Your task to perform on an android device: Is it going to rain tomorrow? Image 0: 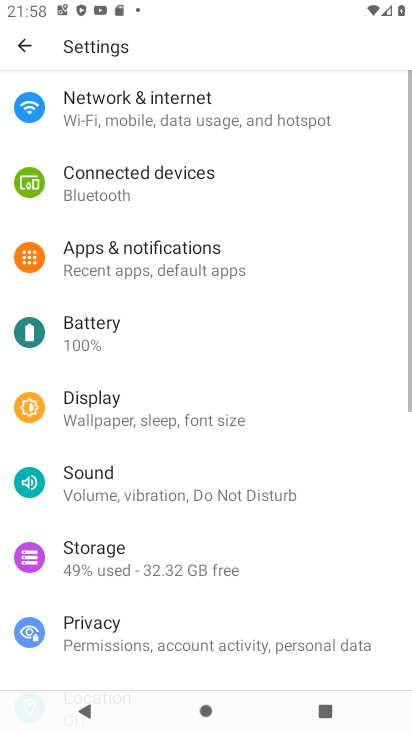
Step 0: press home button
Your task to perform on an android device: Is it going to rain tomorrow? Image 1: 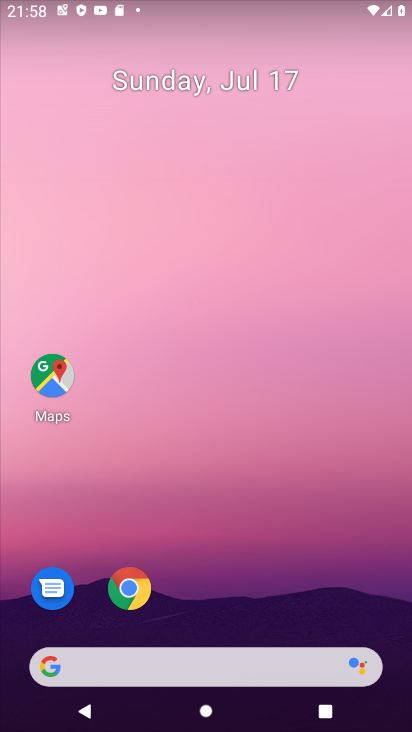
Step 1: click (130, 605)
Your task to perform on an android device: Is it going to rain tomorrow? Image 2: 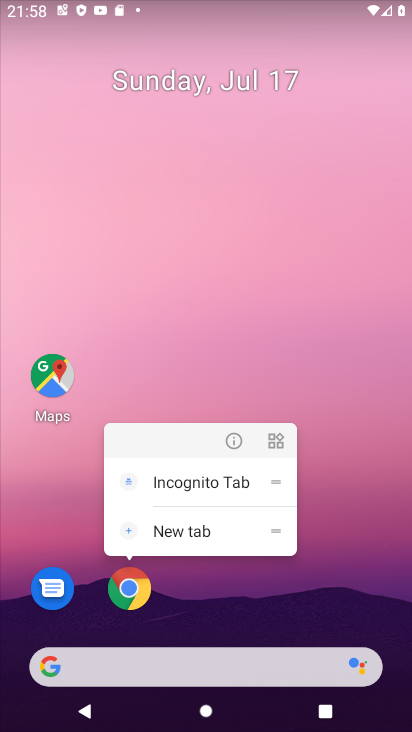
Step 2: click (139, 574)
Your task to perform on an android device: Is it going to rain tomorrow? Image 3: 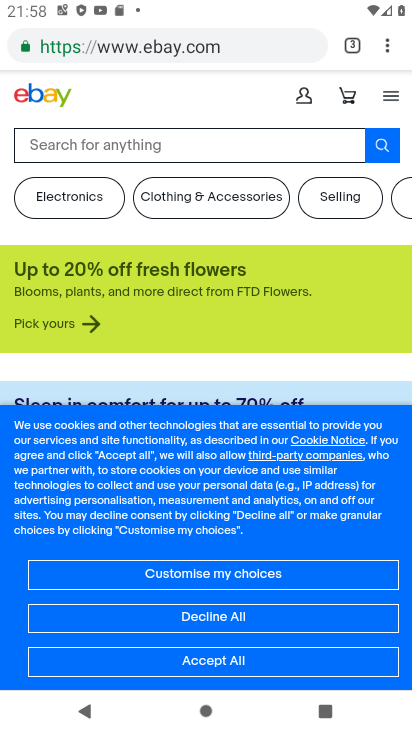
Step 3: click (220, 42)
Your task to perform on an android device: Is it going to rain tomorrow? Image 4: 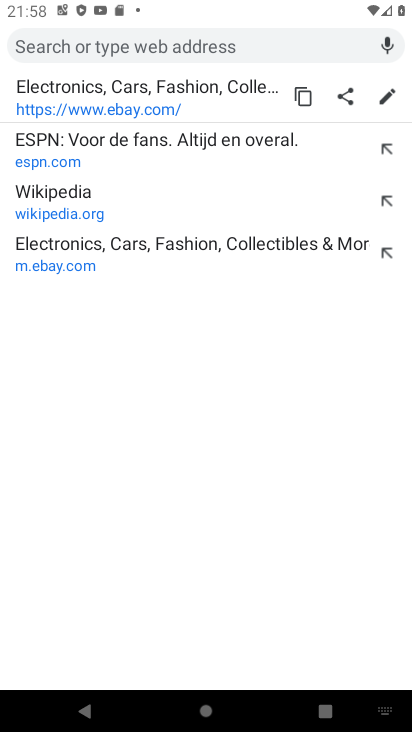
Step 4: type "Is it going to rain tomorrow?"
Your task to perform on an android device: Is it going to rain tomorrow? Image 5: 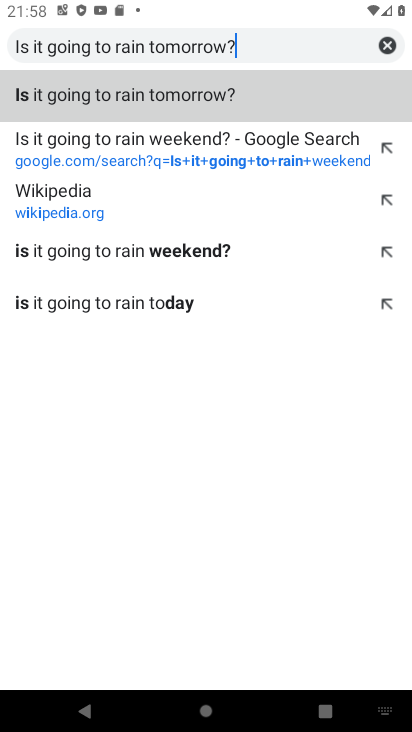
Step 5: type ""
Your task to perform on an android device: Is it going to rain tomorrow? Image 6: 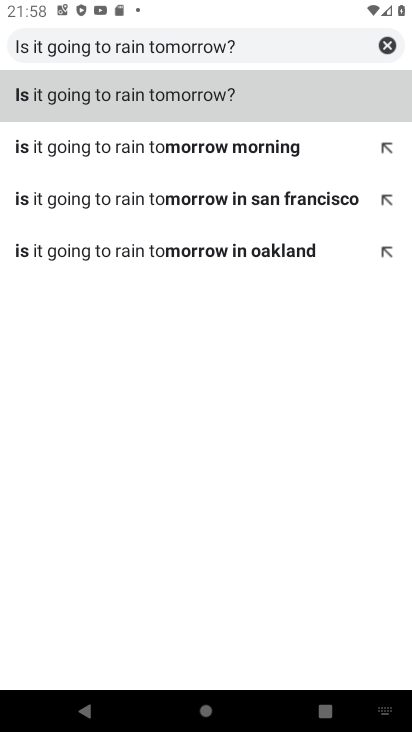
Step 6: click (139, 86)
Your task to perform on an android device: Is it going to rain tomorrow? Image 7: 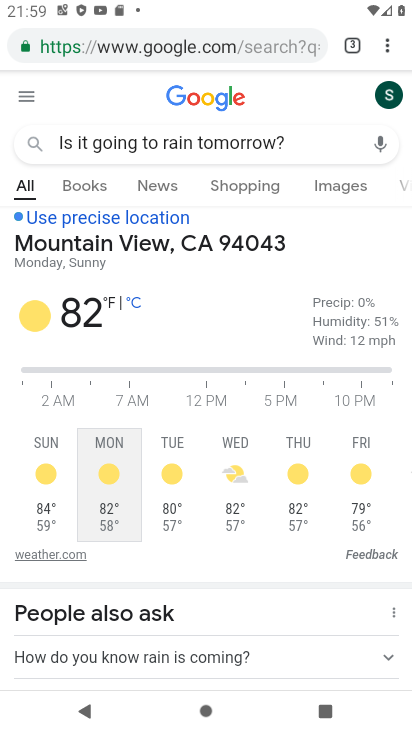
Step 7: task complete